Your task to perform on an android device: all mails in gmail Image 0: 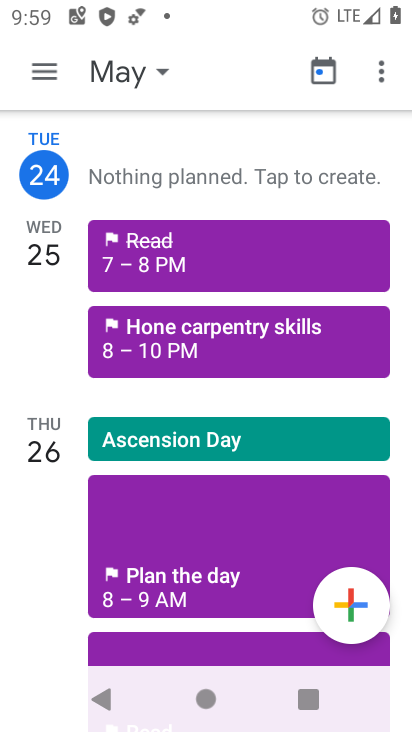
Step 0: press home button
Your task to perform on an android device: all mails in gmail Image 1: 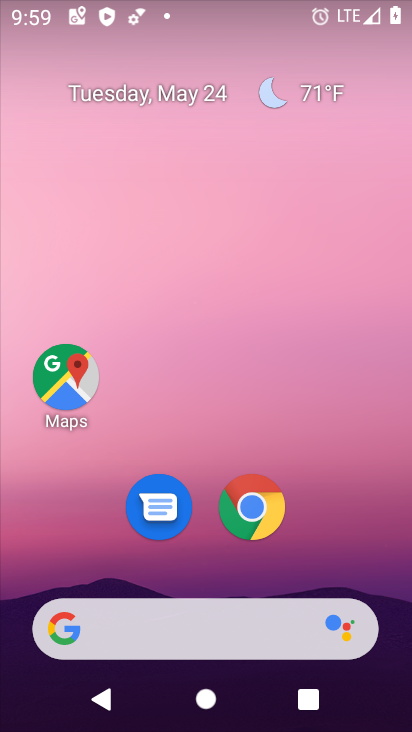
Step 1: drag from (239, 724) to (226, 158)
Your task to perform on an android device: all mails in gmail Image 2: 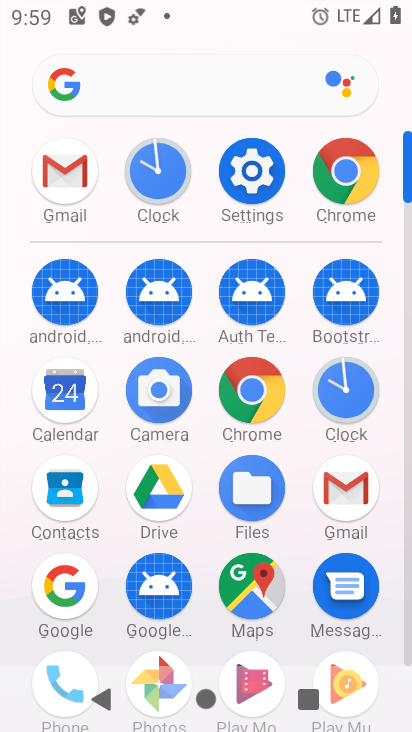
Step 2: click (348, 492)
Your task to perform on an android device: all mails in gmail Image 3: 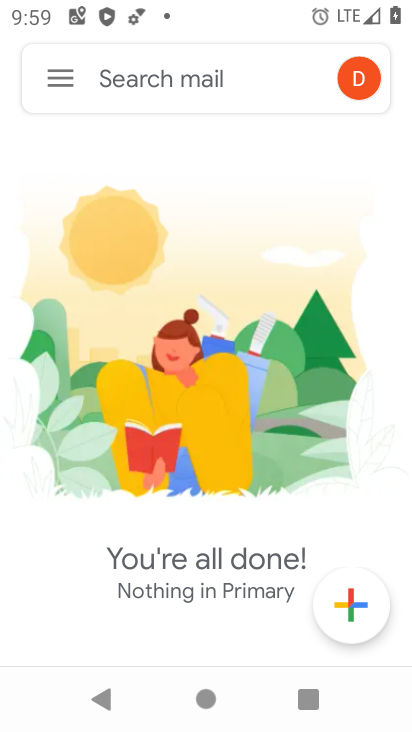
Step 3: click (54, 66)
Your task to perform on an android device: all mails in gmail Image 4: 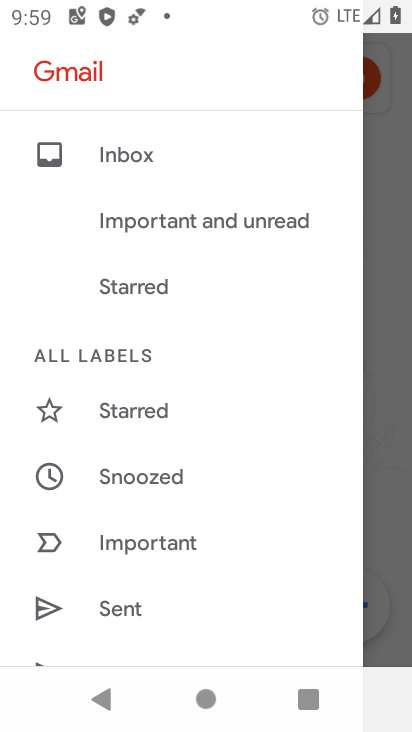
Step 4: drag from (164, 445) to (179, 217)
Your task to perform on an android device: all mails in gmail Image 5: 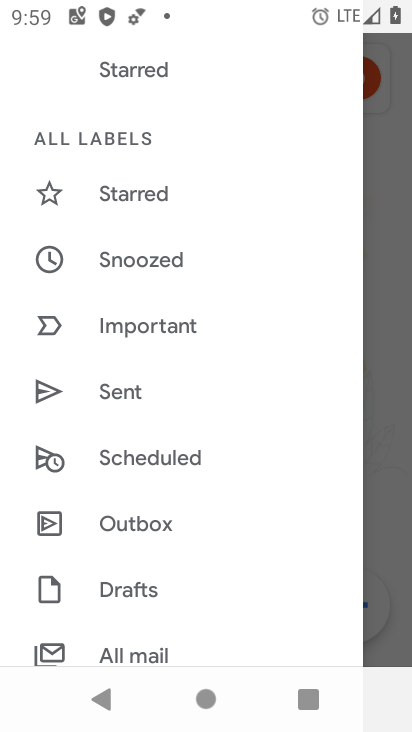
Step 5: click (118, 650)
Your task to perform on an android device: all mails in gmail Image 6: 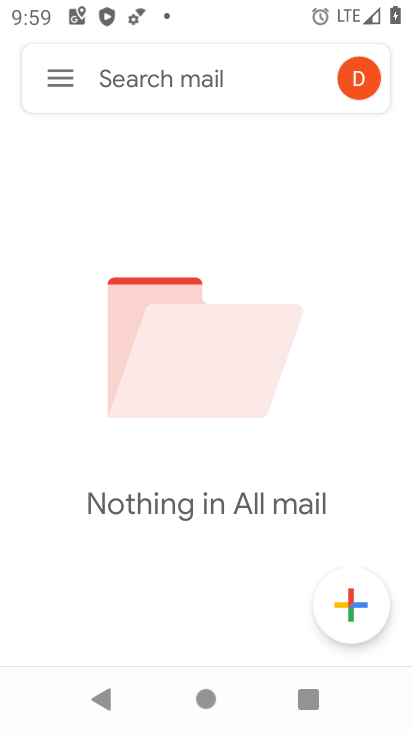
Step 6: task complete